Your task to perform on an android device: Open Google Maps Image 0: 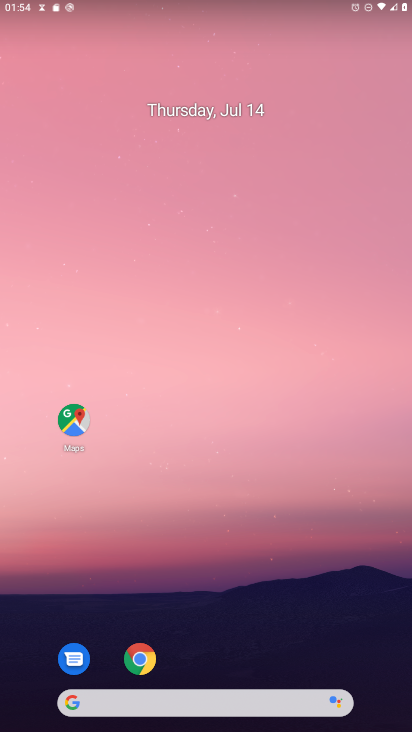
Step 0: click (77, 418)
Your task to perform on an android device: Open Google Maps Image 1: 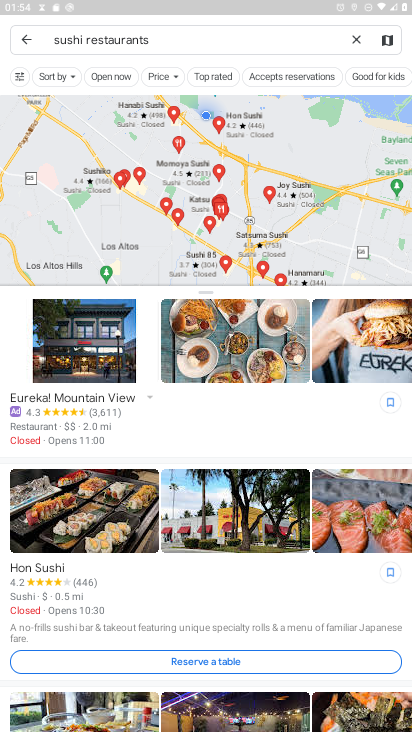
Step 1: click (26, 38)
Your task to perform on an android device: Open Google Maps Image 2: 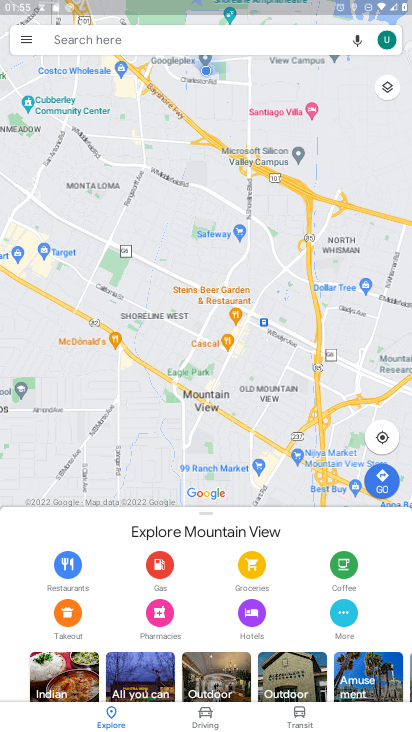
Step 2: task complete